Your task to perform on an android device: install app "Booking.com: Hotels and more" Image 0: 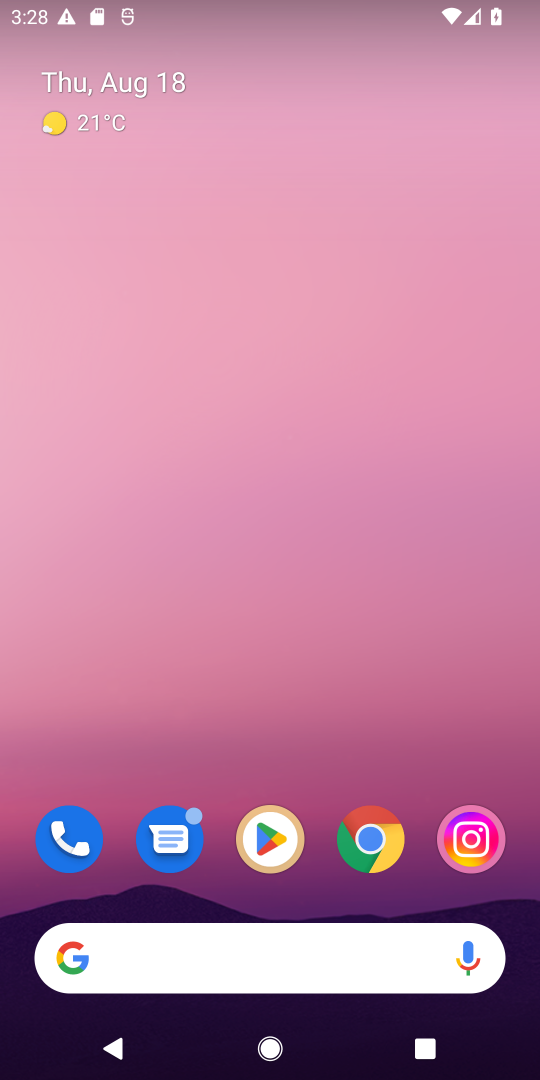
Step 0: click (284, 857)
Your task to perform on an android device: install app "Booking.com: Hotels and more" Image 1: 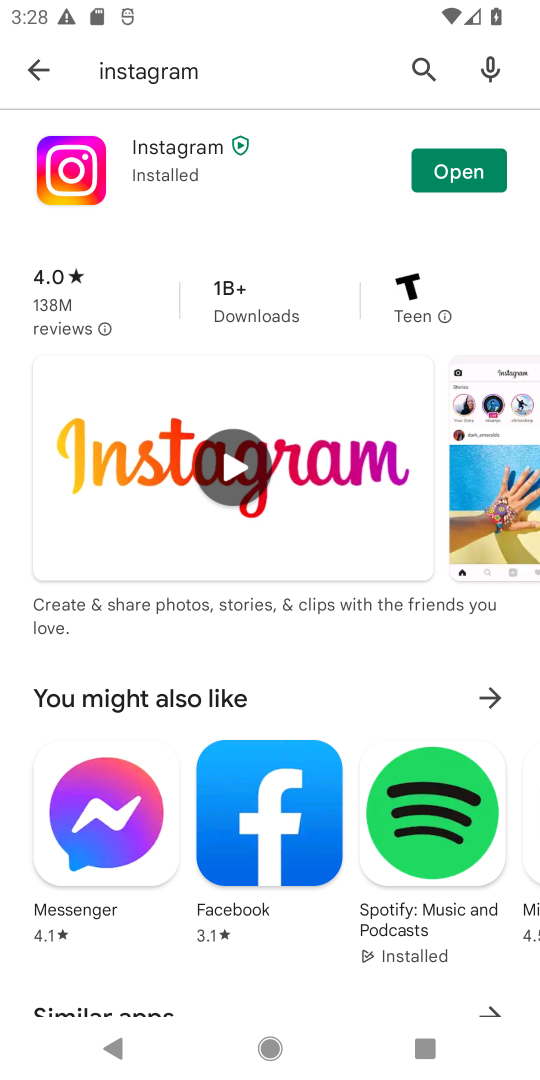
Step 1: click (33, 63)
Your task to perform on an android device: install app "Booking.com: Hotels and more" Image 2: 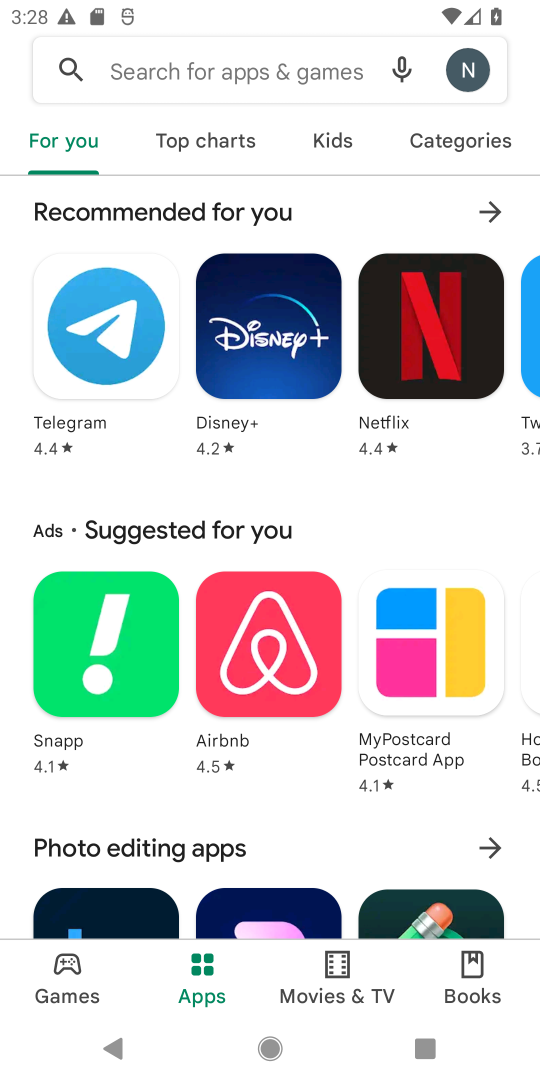
Step 2: click (229, 69)
Your task to perform on an android device: install app "Booking.com: Hotels and more" Image 3: 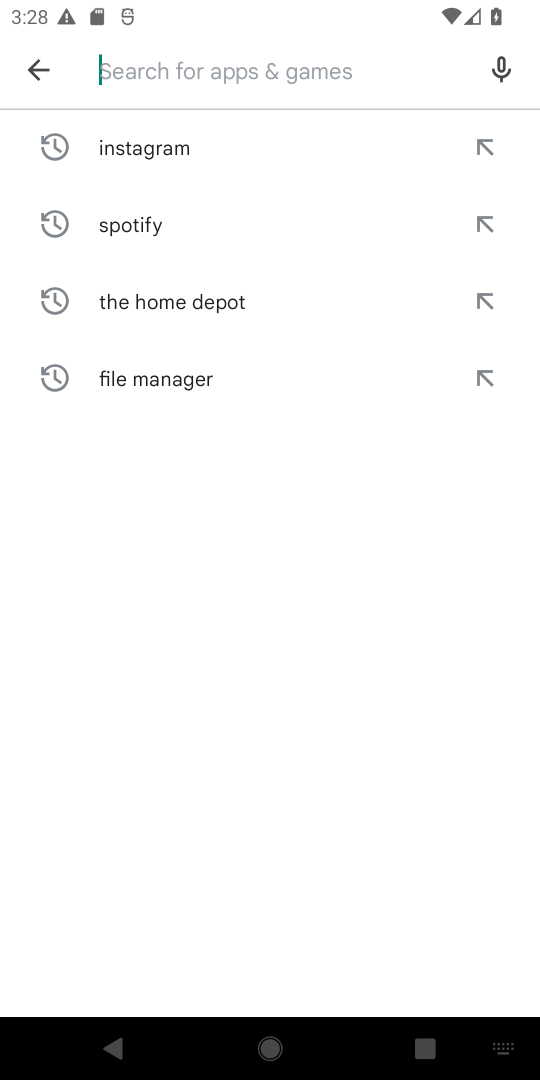
Step 3: type "Booking.com: Hotels and more"
Your task to perform on an android device: install app "Booking.com: Hotels and more" Image 4: 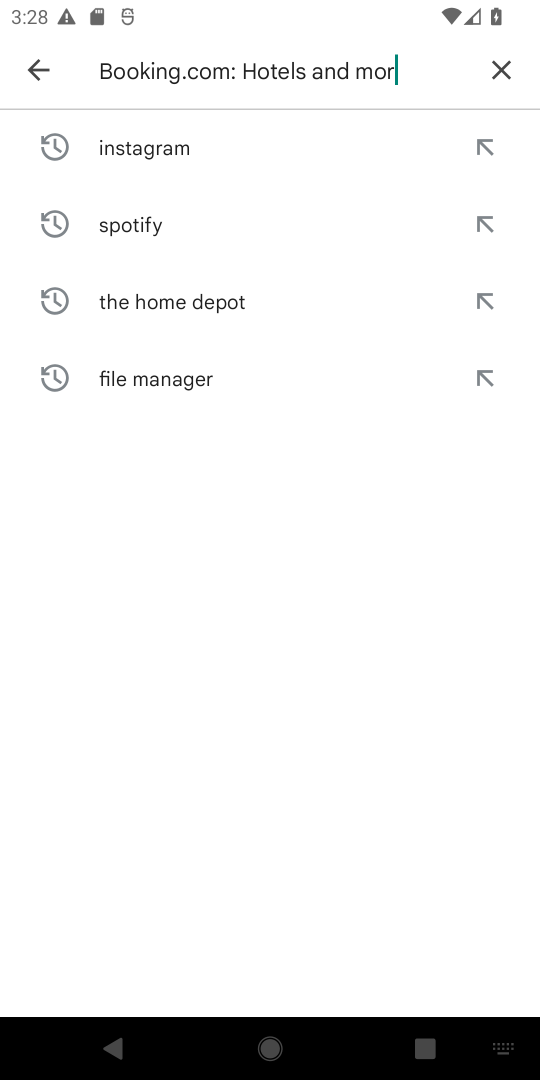
Step 4: type ""
Your task to perform on an android device: install app "Booking.com: Hotels and more" Image 5: 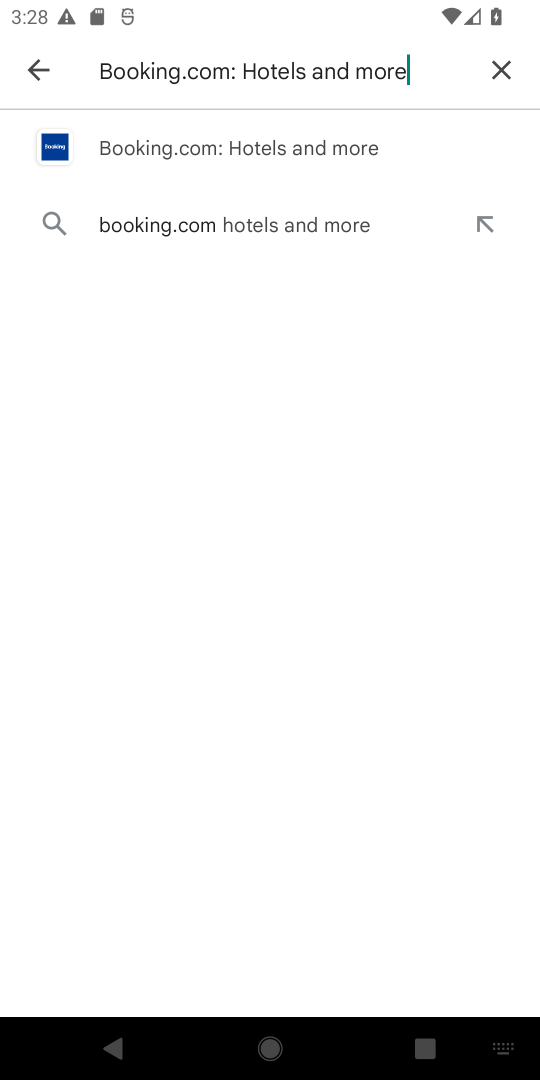
Step 5: click (147, 160)
Your task to perform on an android device: install app "Booking.com: Hotels and more" Image 6: 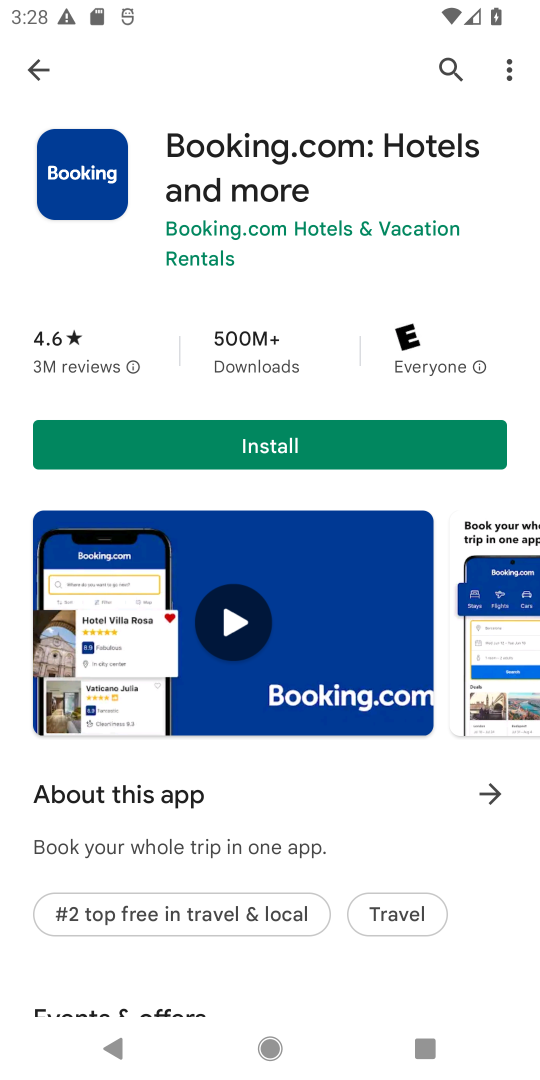
Step 6: click (243, 462)
Your task to perform on an android device: install app "Booking.com: Hotels and more" Image 7: 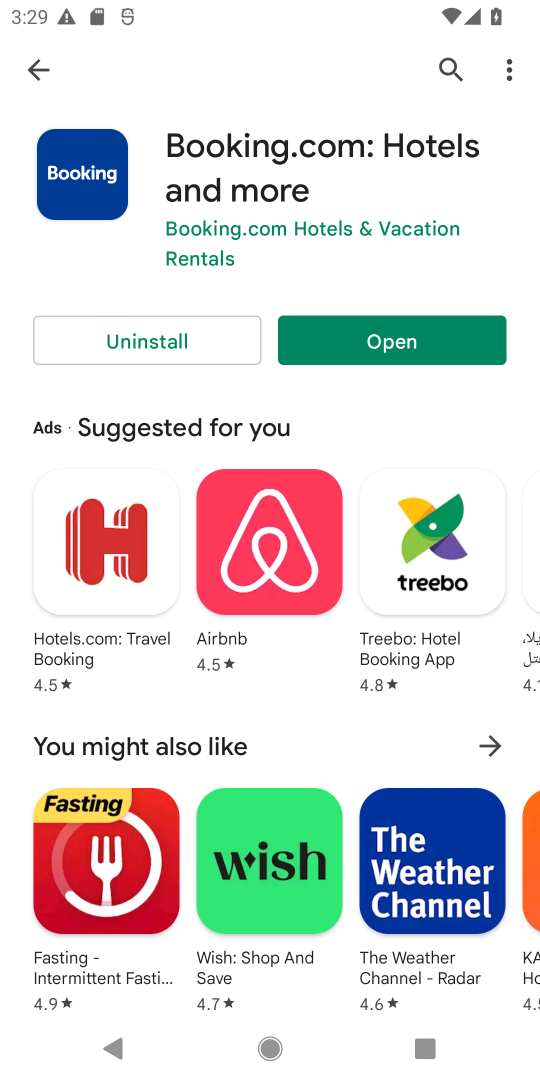
Step 7: click (373, 349)
Your task to perform on an android device: install app "Booking.com: Hotels and more" Image 8: 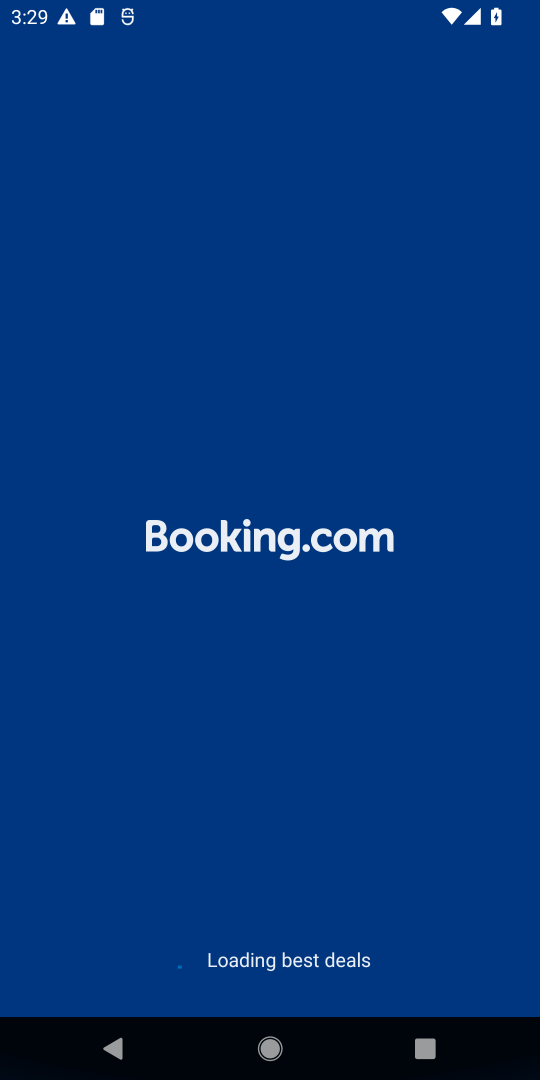
Step 8: task complete